Your task to perform on an android device: Open calendar and show me the first week of next month Image 0: 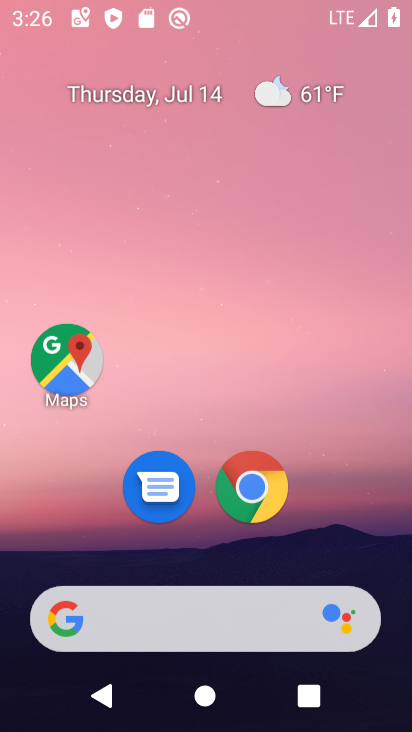
Step 0: drag from (158, 550) to (212, 59)
Your task to perform on an android device: Open calendar and show me the first week of next month Image 1: 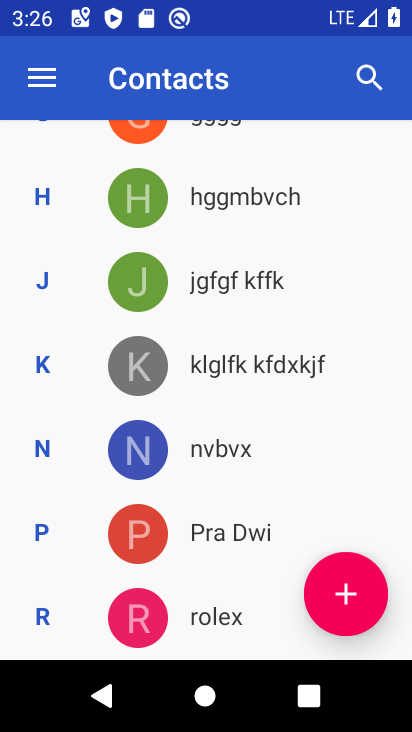
Step 1: press back button
Your task to perform on an android device: Open calendar and show me the first week of next month Image 2: 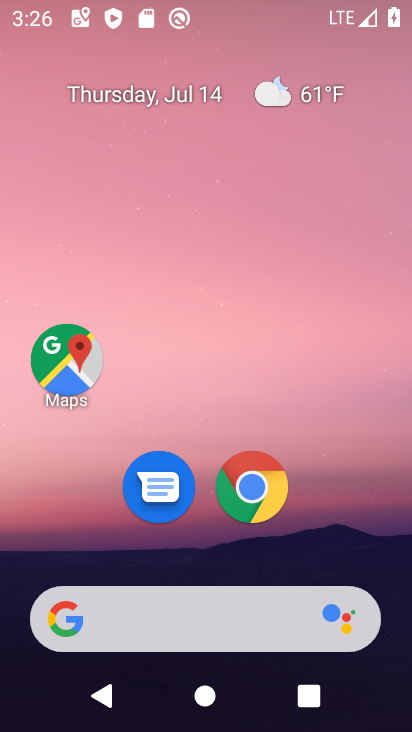
Step 2: drag from (162, 538) to (229, 67)
Your task to perform on an android device: Open calendar and show me the first week of next month Image 3: 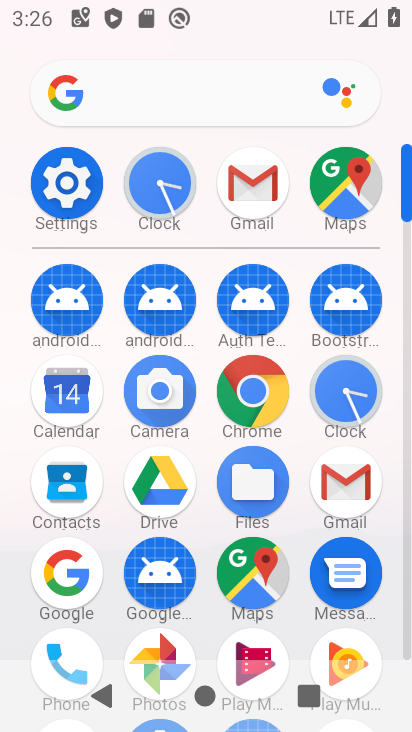
Step 3: click (60, 381)
Your task to perform on an android device: Open calendar and show me the first week of next month Image 4: 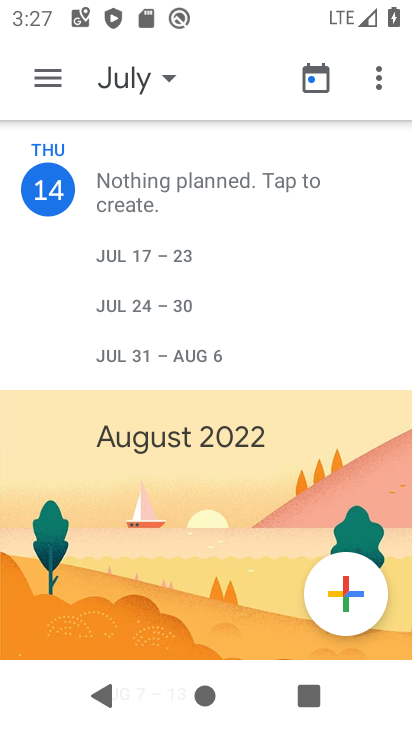
Step 4: click (127, 80)
Your task to perform on an android device: Open calendar and show me the first week of next month Image 5: 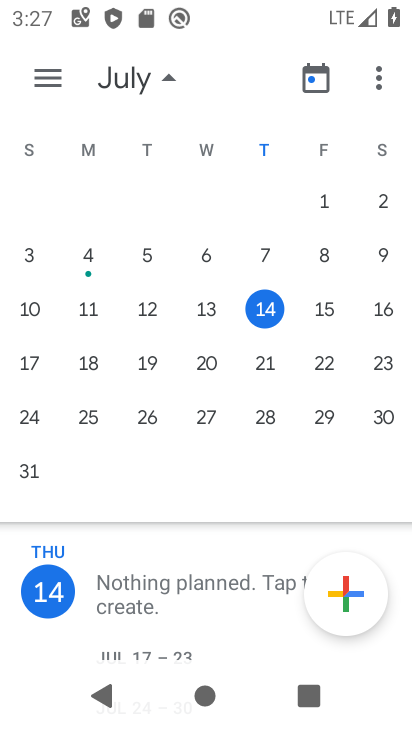
Step 5: drag from (368, 326) to (102, 339)
Your task to perform on an android device: Open calendar and show me the first week of next month Image 6: 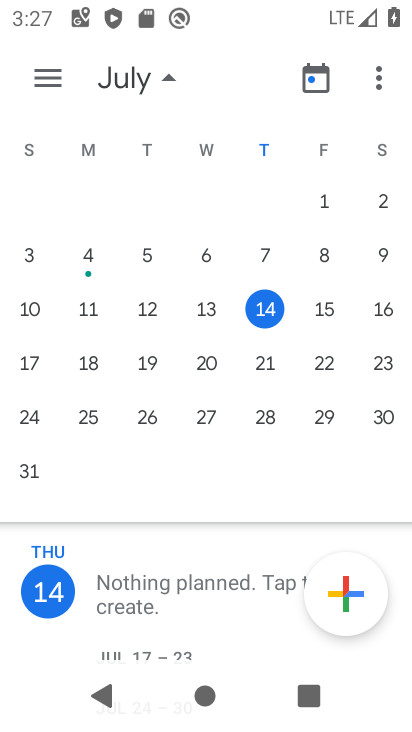
Step 6: drag from (374, 322) to (0, 351)
Your task to perform on an android device: Open calendar and show me the first week of next month Image 7: 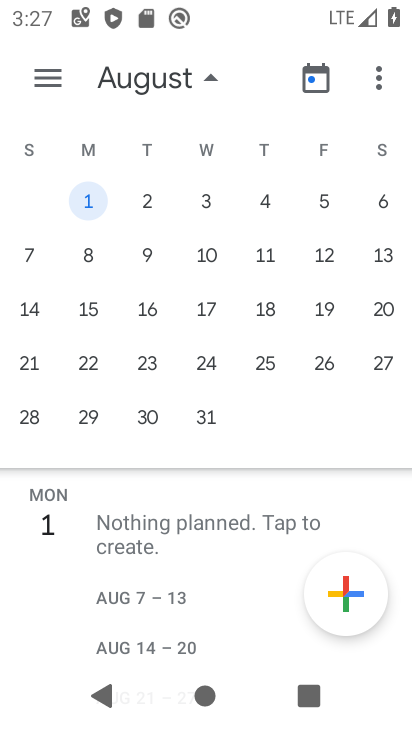
Step 7: click (93, 195)
Your task to perform on an android device: Open calendar and show me the first week of next month Image 8: 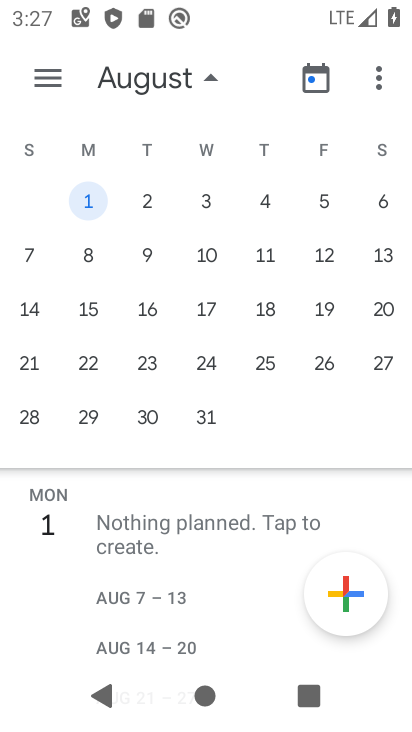
Step 8: task complete